Your task to perform on an android device: see tabs open on other devices in the chrome app Image 0: 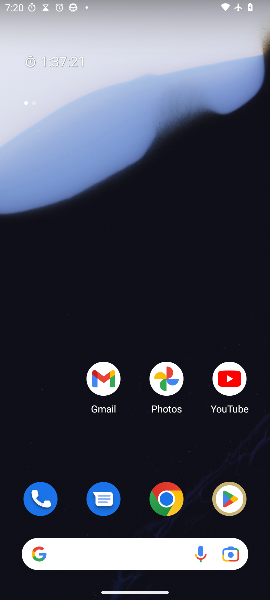
Step 0: drag from (70, 512) to (75, 163)
Your task to perform on an android device: see tabs open on other devices in the chrome app Image 1: 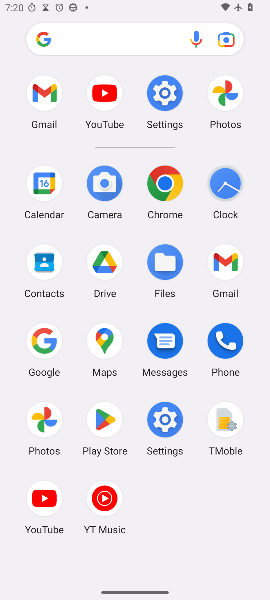
Step 1: click (170, 184)
Your task to perform on an android device: see tabs open on other devices in the chrome app Image 2: 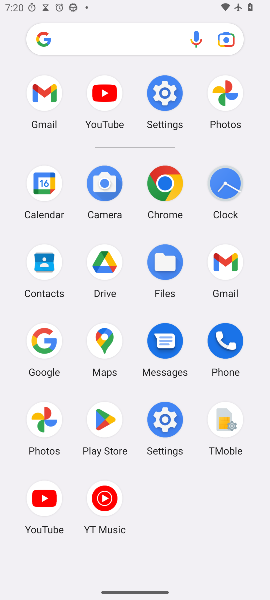
Step 2: click (157, 192)
Your task to perform on an android device: see tabs open on other devices in the chrome app Image 3: 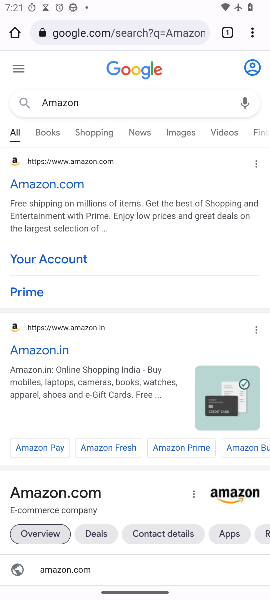
Step 3: drag from (259, 37) to (192, 217)
Your task to perform on an android device: see tabs open on other devices in the chrome app Image 4: 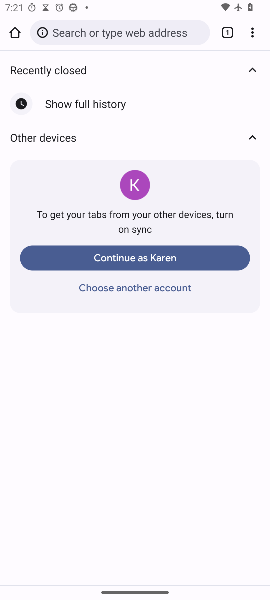
Step 4: click (122, 263)
Your task to perform on an android device: see tabs open on other devices in the chrome app Image 5: 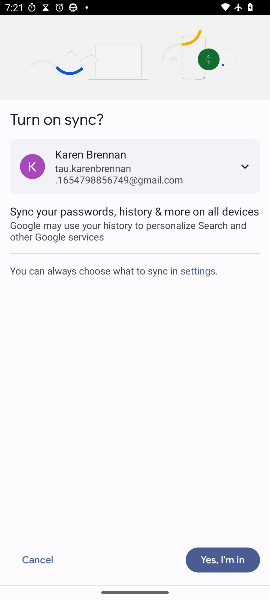
Step 5: click (224, 554)
Your task to perform on an android device: see tabs open on other devices in the chrome app Image 6: 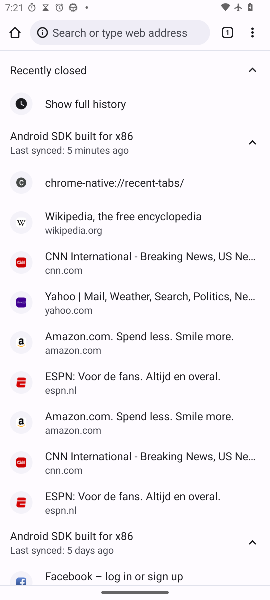
Step 6: task complete